Your task to perform on an android device: Open Yahoo.com Image 0: 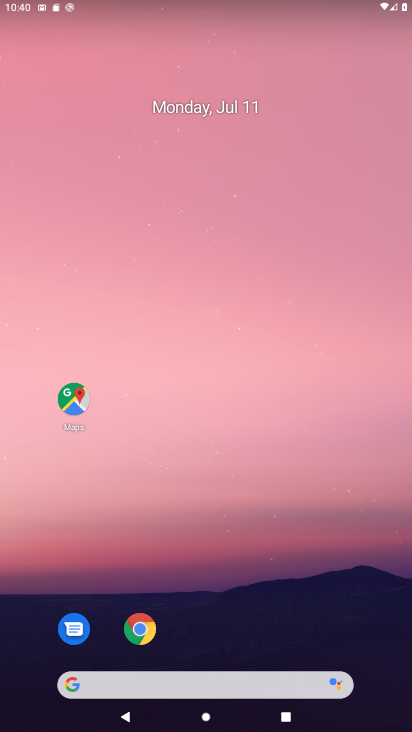
Step 0: click (145, 632)
Your task to perform on an android device: Open Yahoo.com Image 1: 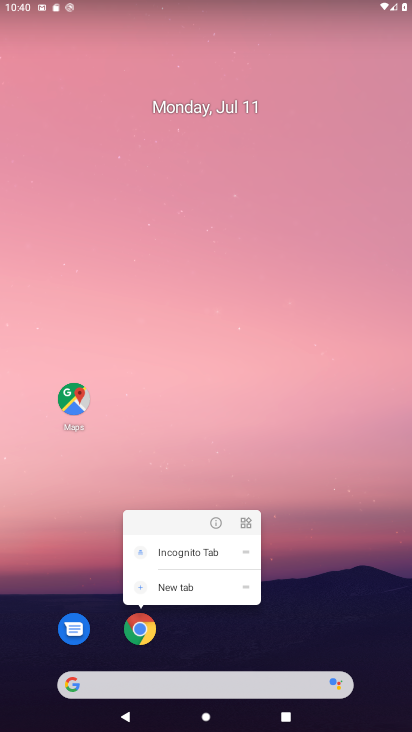
Step 1: click (145, 631)
Your task to perform on an android device: Open Yahoo.com Image 2: 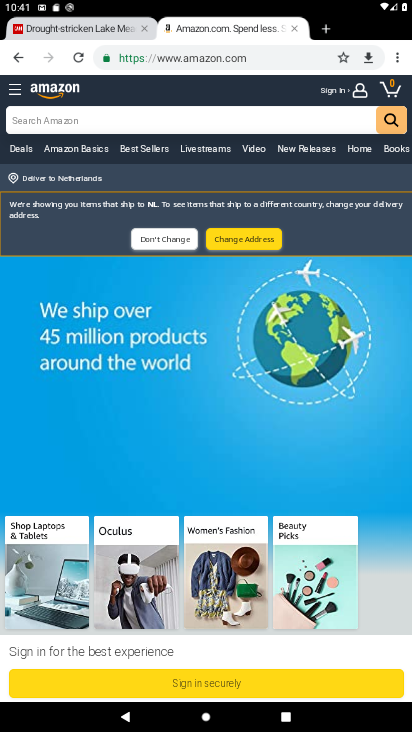
Step 2: click (145, 28)
Your task to perform on an android device: Open Yahoo.com Image 3: 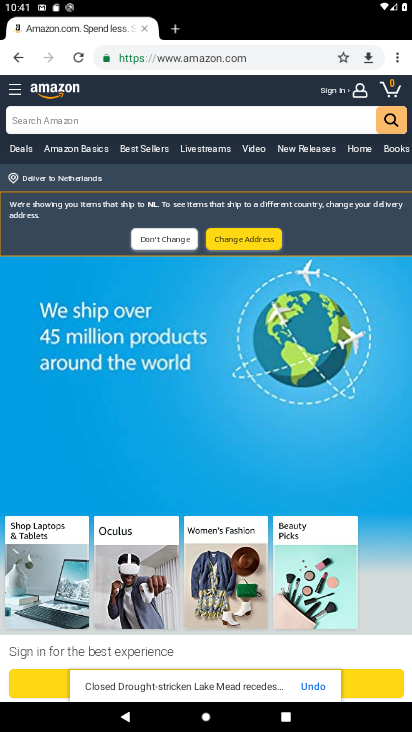
Step 3: click (171, 28)
Your task to perform on an android device: Open Yahoo.com Image 4: 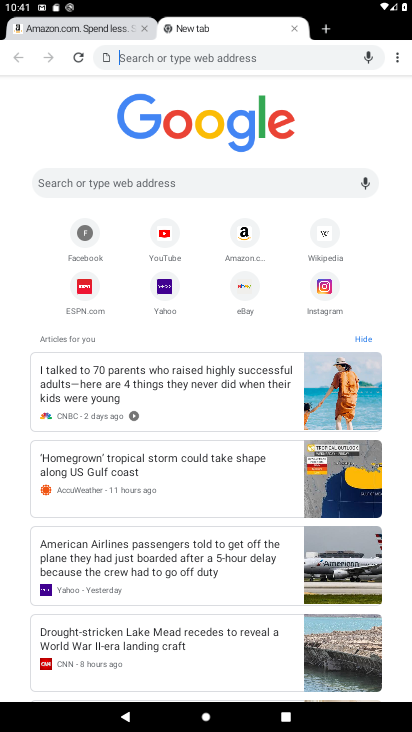
Step 4: click (146, 29)
Your task to perform on an android device: Open Yahoo.com Image 5: 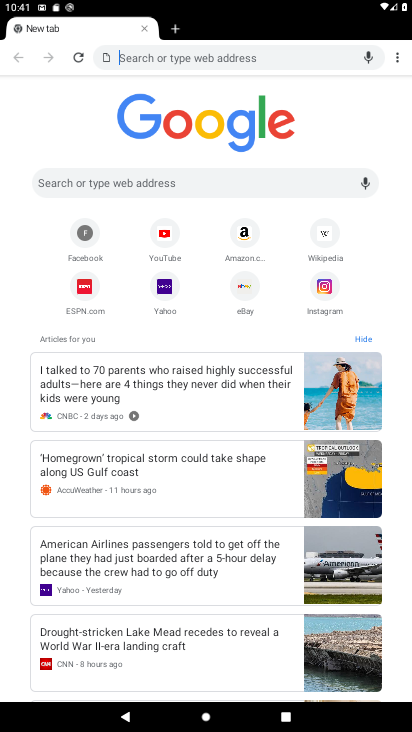
Step 5: click (161, 294)
Your task to perform on an android device: Open Yahoo.com Image 6: 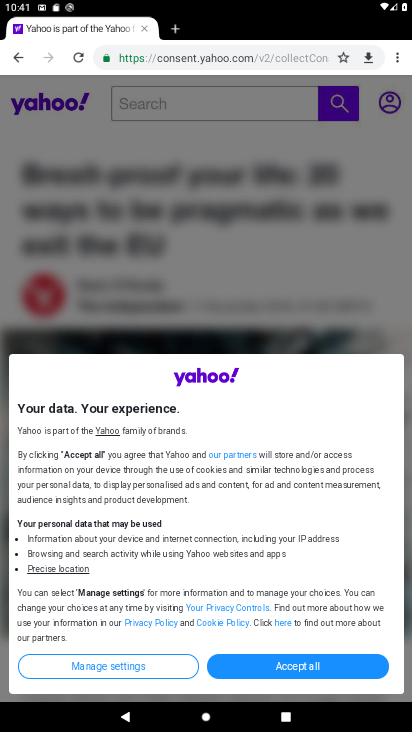
Step 6: task complete